Your task to perform on an android device: Add jbl flip 4 to the cart on target.com, then select checkout. Image 0: 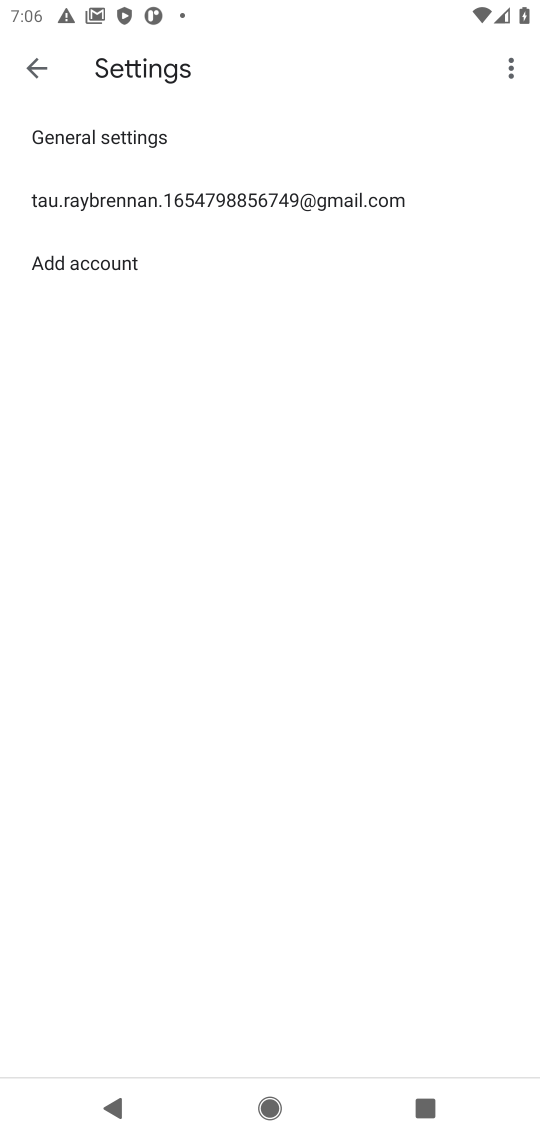
Step 0: press home button
Your task to perform on an android device: Add jbl flip 4 to the cart on target.com, then select checkout. Image 1: 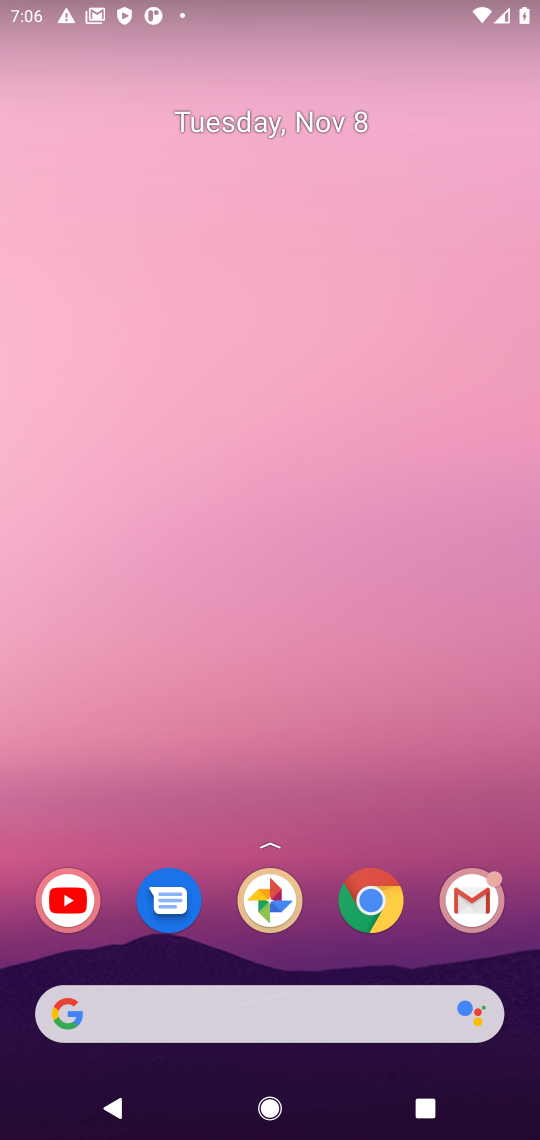
Step 1: click (355, 914)
Your task to perform on an android device: Add jbl flip 4 to the cart on target.com, then select checkout. Image 2: 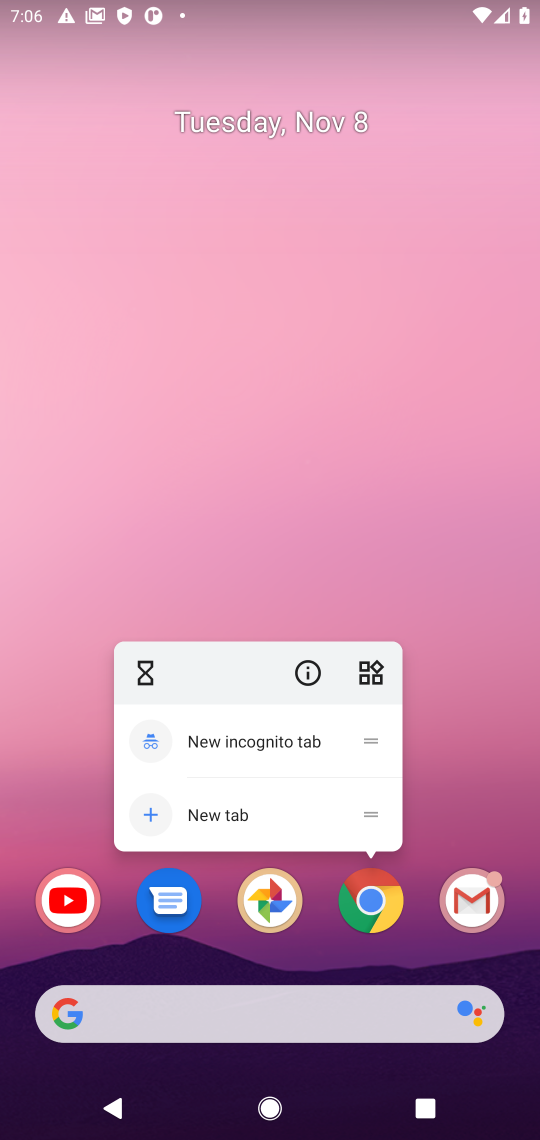
Step 2: click (382, 910)
Your task to perform on an android device: Add jbl flip 4 to the cart on target.com, then select checkout. Image 3: 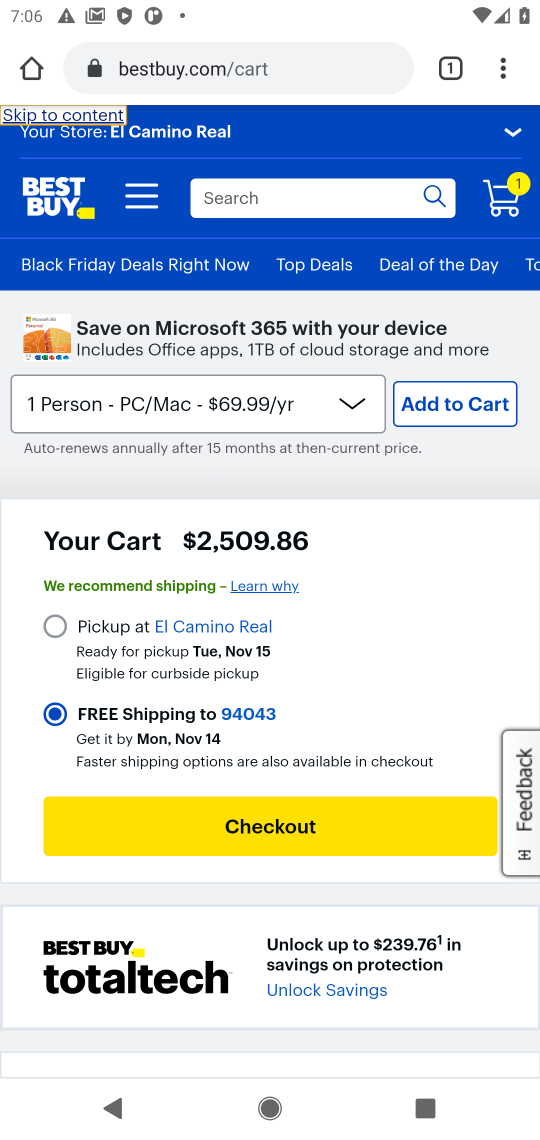
Step 3: click (227, 68)
Your task to perform on an android device: Add jbl flip 4 to the cart on target.com, then select checkout. Image 4: 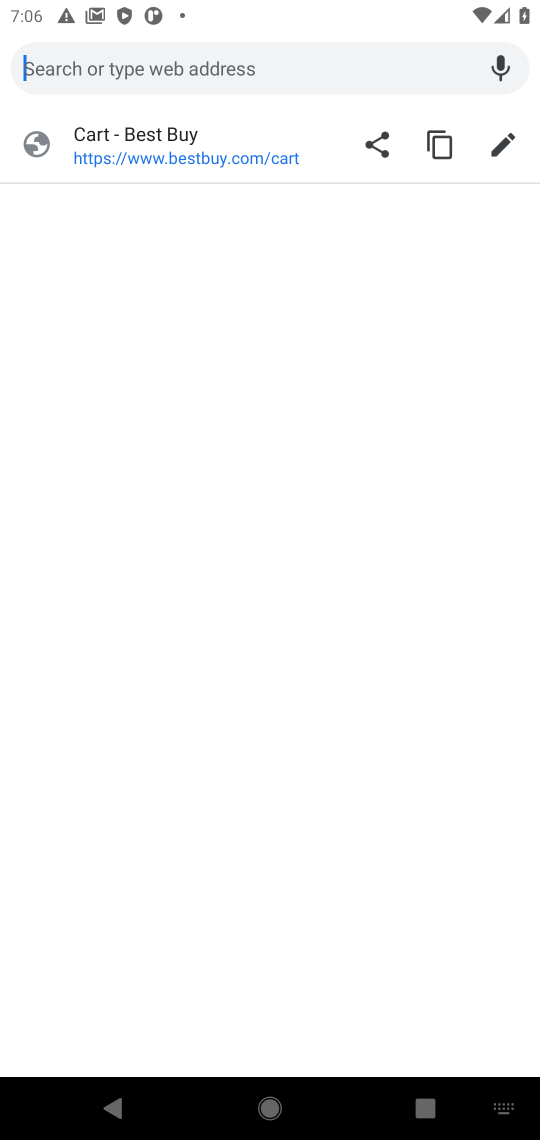
Step 4: type "target"
Your task to perform on an android device: Add jbl flip 4 to the cart on target.com, then select checkout. Image 5: 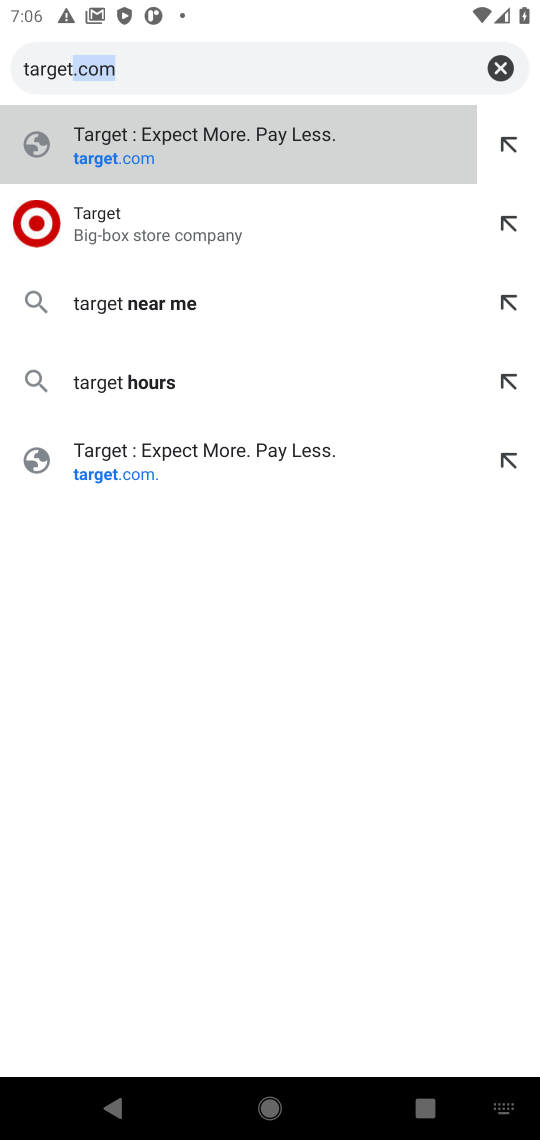
Step 5: type ""
Your task to perform on an android device: Add jbl flip 4 to the cart on target.com, then select checkout. Image 6: 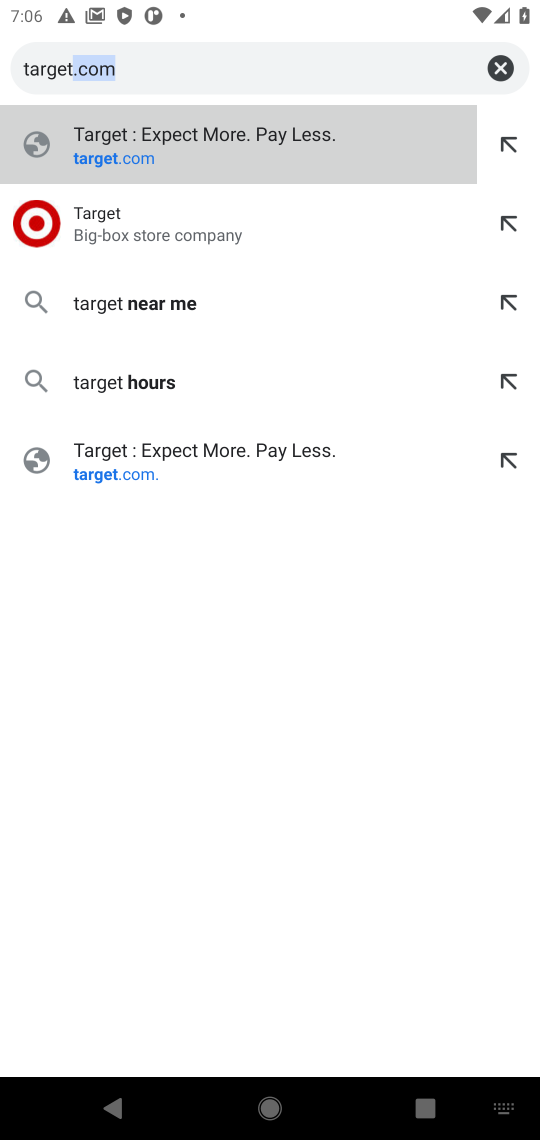
Step 6: click (125, 229)
Your task to perform on an android device: Add jbl flip 4 to the cart on target.com, then select checkout. Image 7: 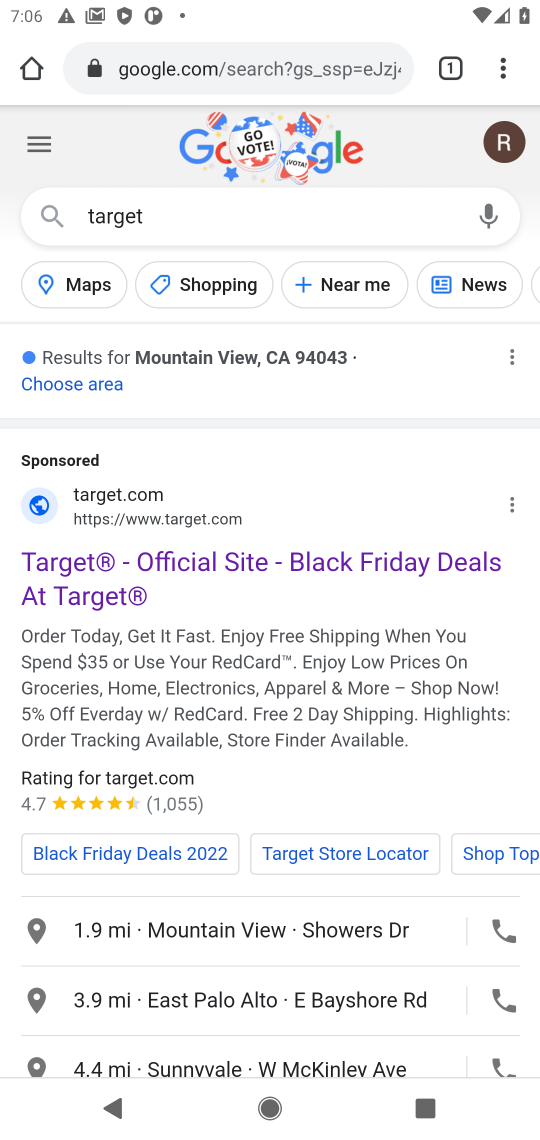
Step 7: drag from (250, 939) to (274, 296)
Your task to perform on an android device: Add jbl flip 4 to the cart on target.com, then select checkout. Image 8: 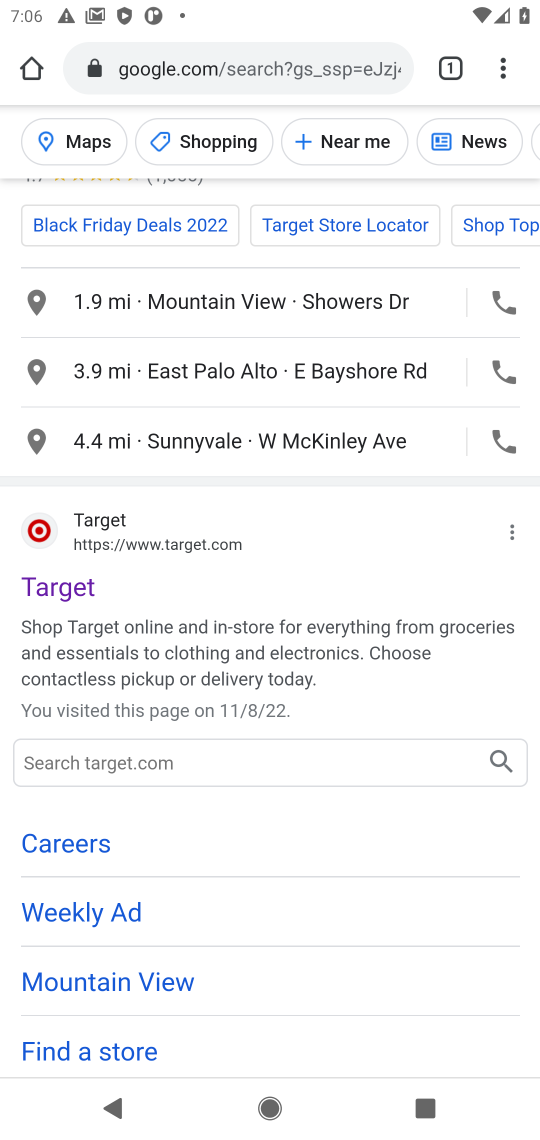
Step 8: click (66, 588)
Your task to perform on an android device: Add jbl flip 4 to the cart on target.com, then select checkout. Image 9: 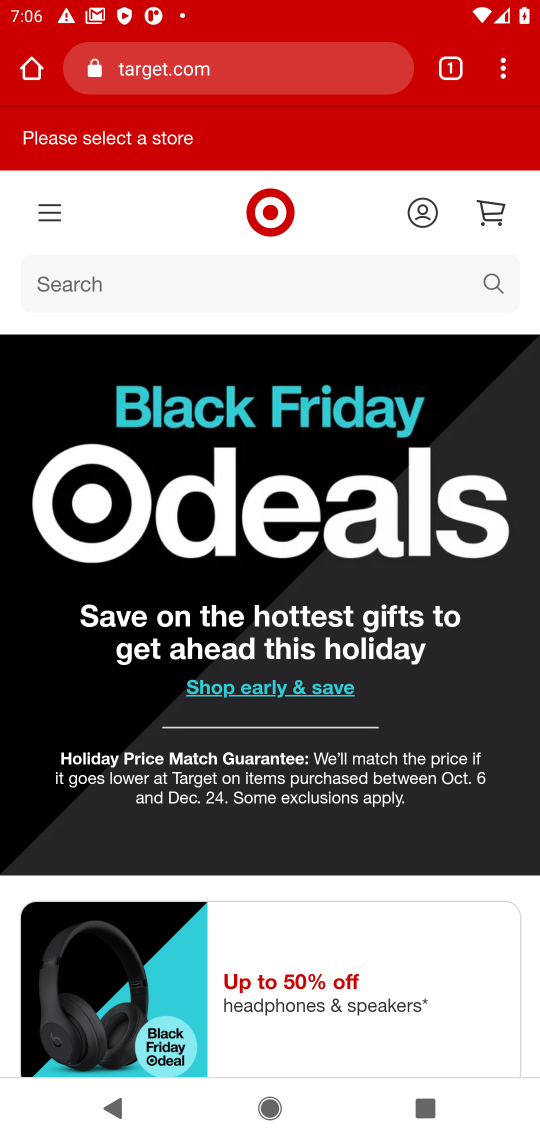
Step 9: click (235, 290)
Your task to perform on an android device: Add jbl flip 4 to the cart on target.com, then select checkout. Image 10: 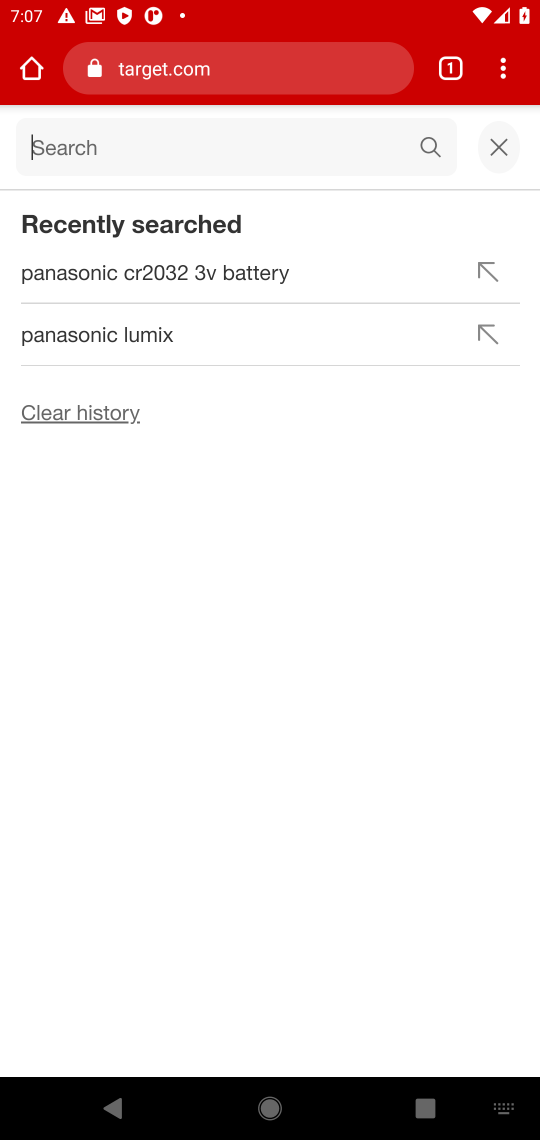
Step 10: type "jbl flip 4"
Your task to perform on an android device: Add jbl flip 4 to the cart on target.com, then select checkout. Image 11: 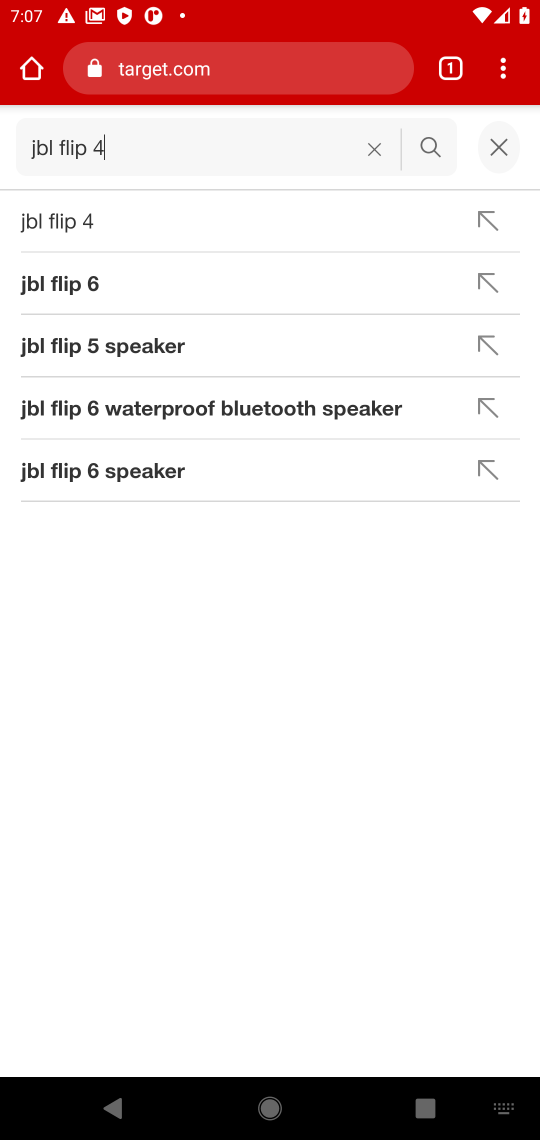
Step 11: type ""
Your task to perform on an android device: Add jbl flip 4 to the cart on target.com, then select checkout. Image 12: 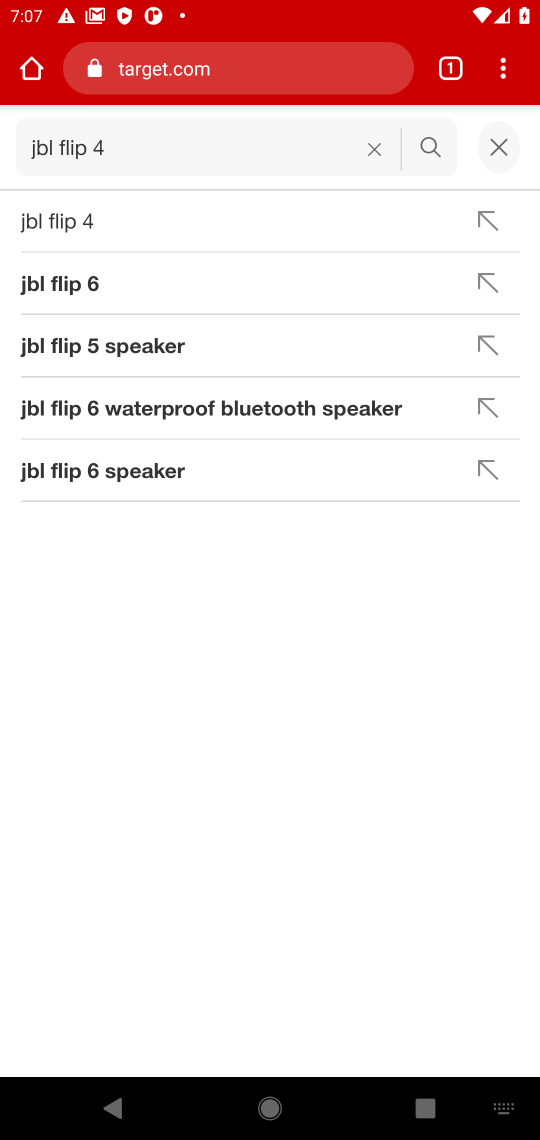
Step 12: click (53, 222)
Your task to perform on an android device: Add jbl flip 4 to the cart on target.com, then select checkout. Image 13: 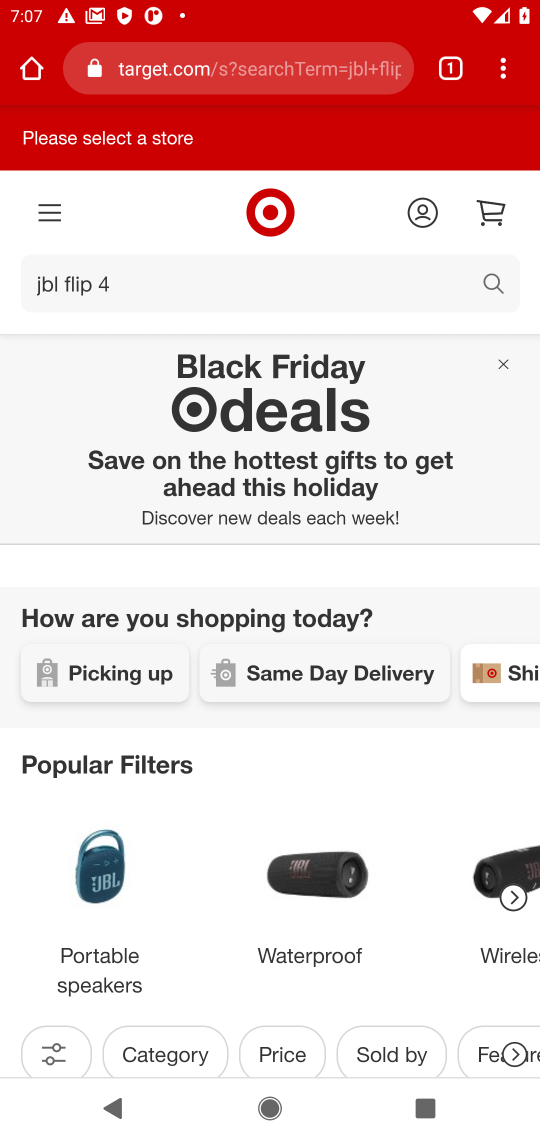
Step 13: drag from (236, 909) to (282, 139)
Your task to perform on an android device: Add jbl flip 4 to the cart on target.com, then select checkout. Image 14: 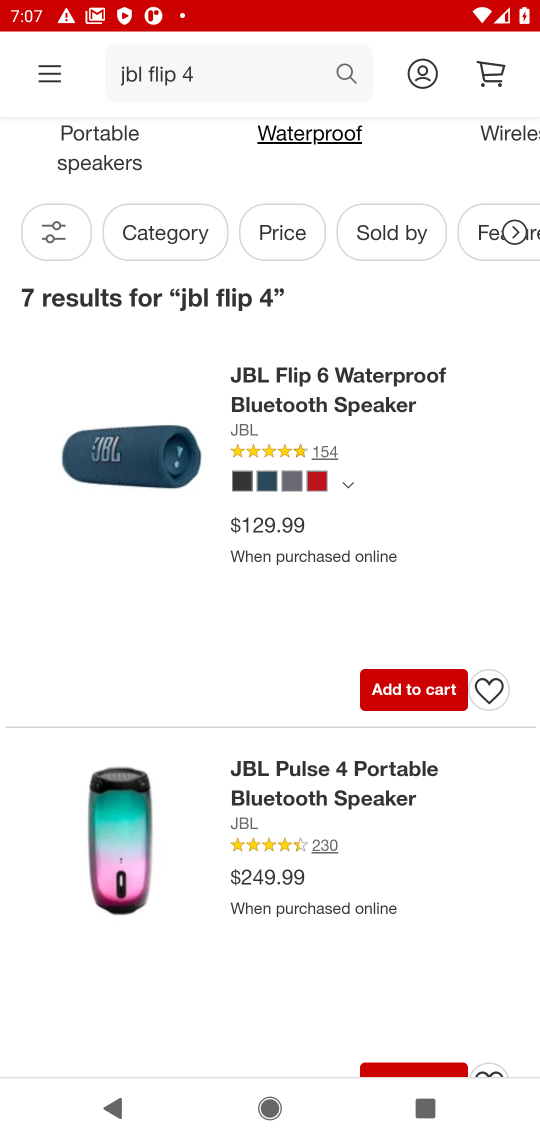
Step 14: drag from (284, 857) to (330, 242)
Your task to perform on an android device: Add jbl flip 4 to the cart on target.com, then select checkout. Image 15: 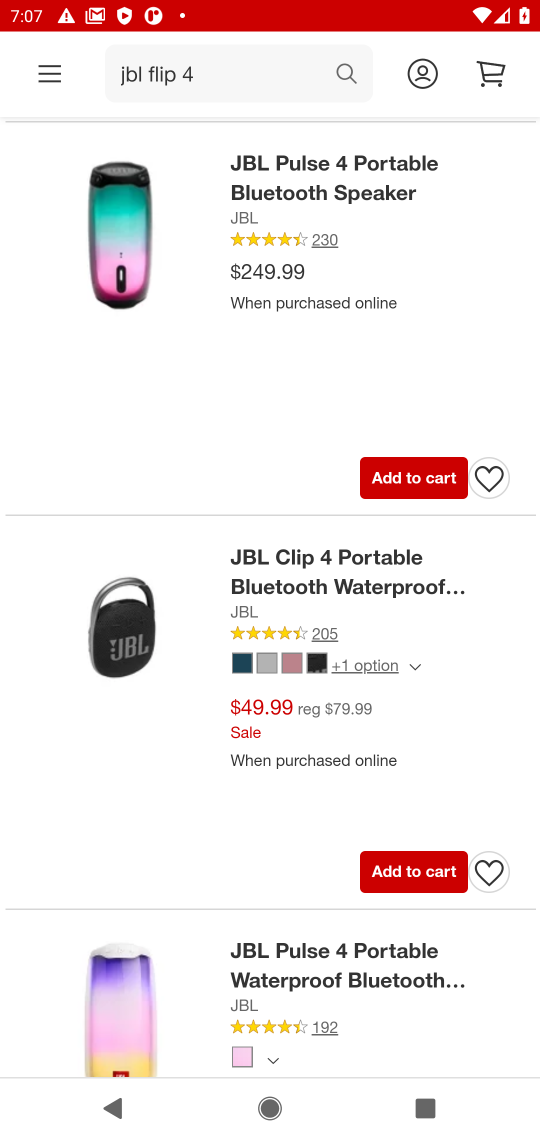
Step 15: drag from (226, 879) to (231, 379)
Your task to perform on an android device: Add jbl flip 4 to the cart on target.com, then select checkout. Image 16: 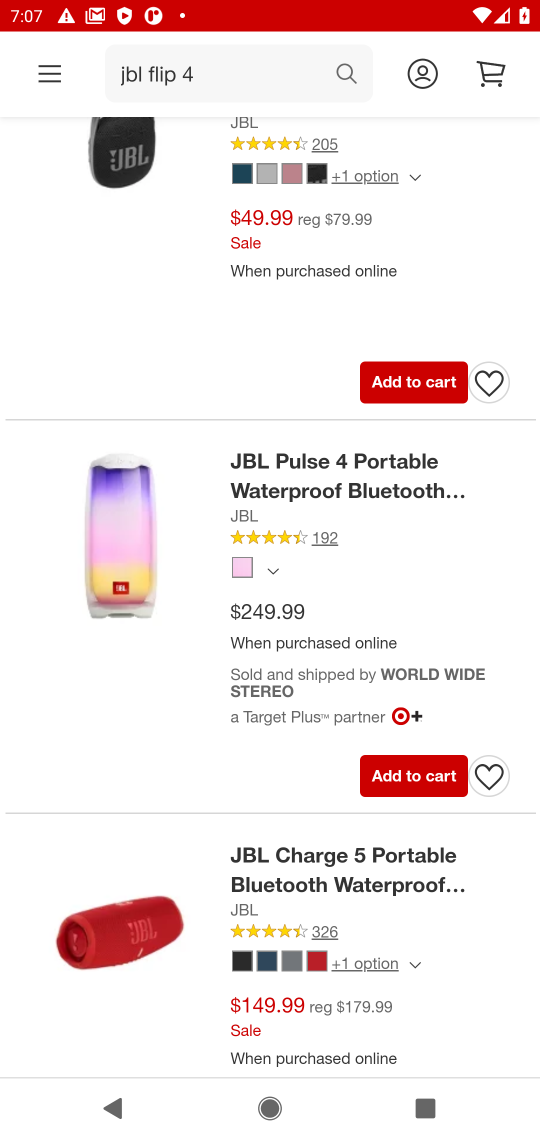
Step 16: drag from (209, 394) to (188, 1006)
Your task to perform on an android device: Add jbl flip 4 to the cart on target.com, then select checkout. Image 17: 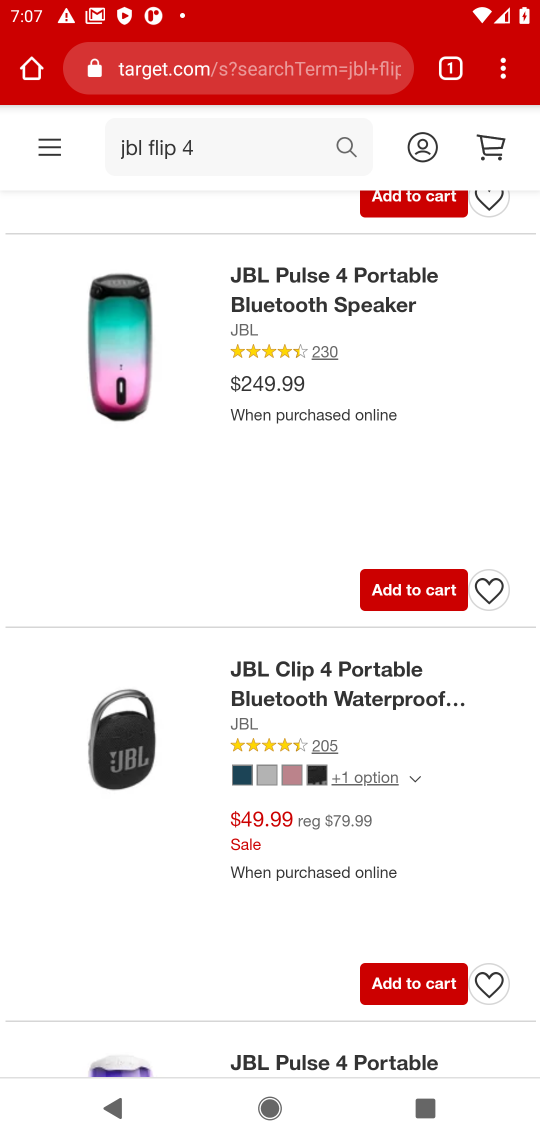
Step 17: drag from (221, 393) to (240, 978)
Your task to perform on an android device: Add jbl flip 4 to the cart on target.com, then select checkout. Image 18: 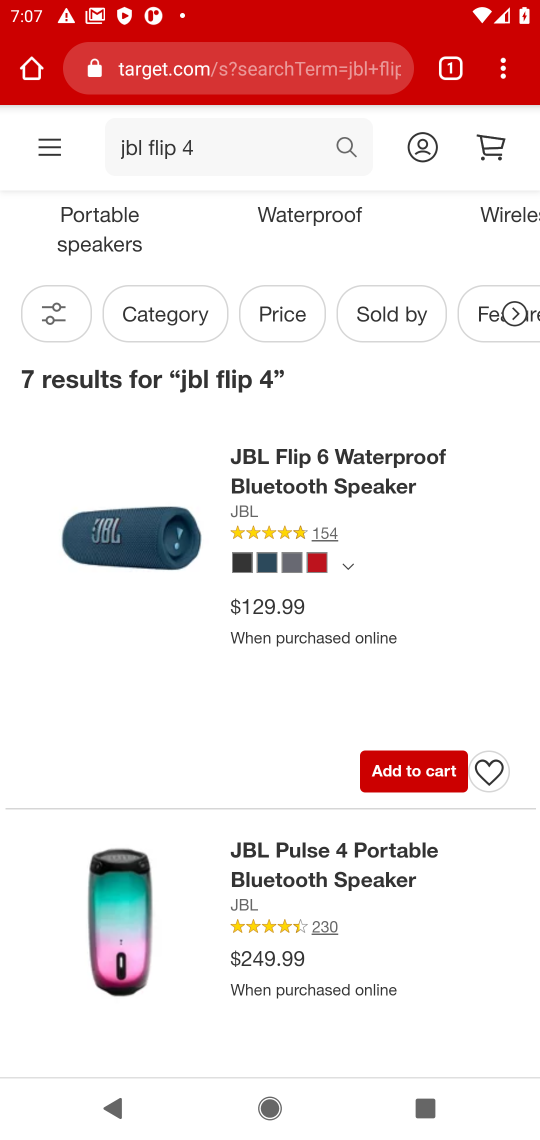
Step 18: click (270, 447)
Your task to perform on an android device: Add jbl flip 4 to the cart on target.com, then select checkout. Image 19: 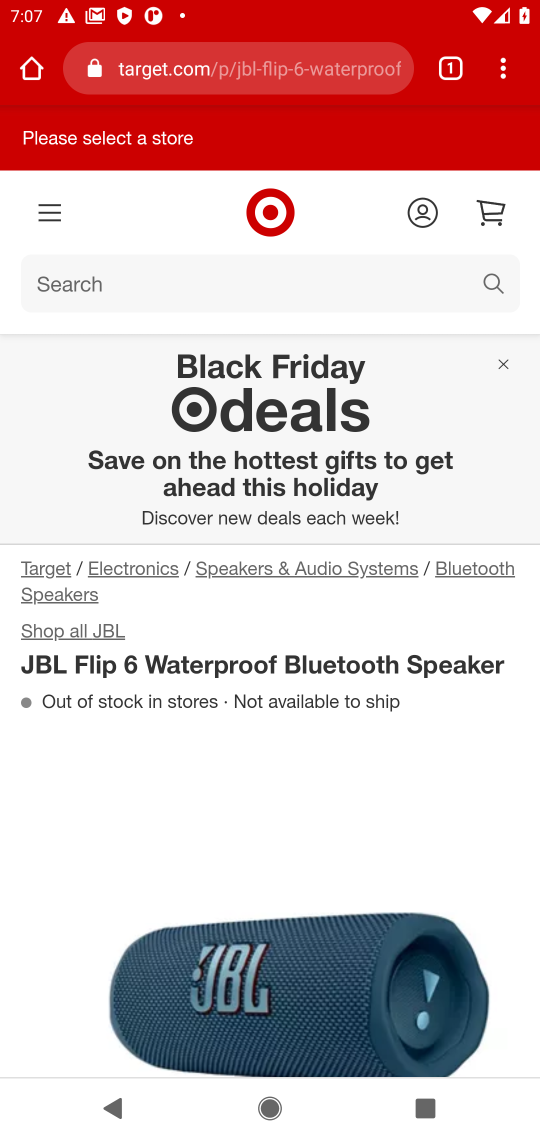
Step 19: drag from (282, 914) to (369, 254)
Your task to perform on an android device: Add jbl flip 4 to the cart on target.com, then select checkout. Image 20: 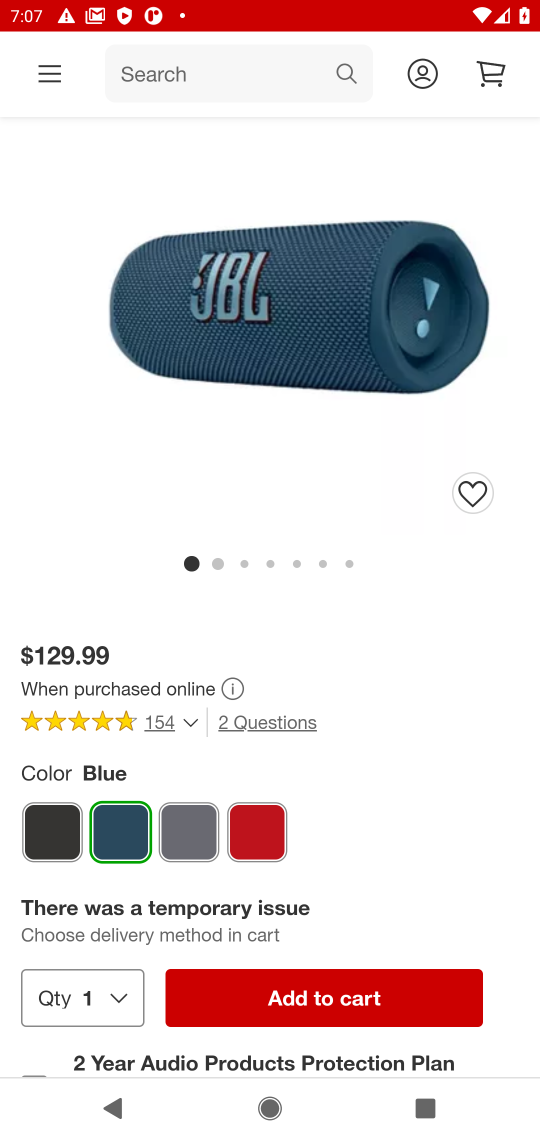
Step 20: drag from (403, 888) to (461, 492)
Your task to perform on an android device: Add jbl flip 4 to the cart on target.com, then select checkout. Image 21: 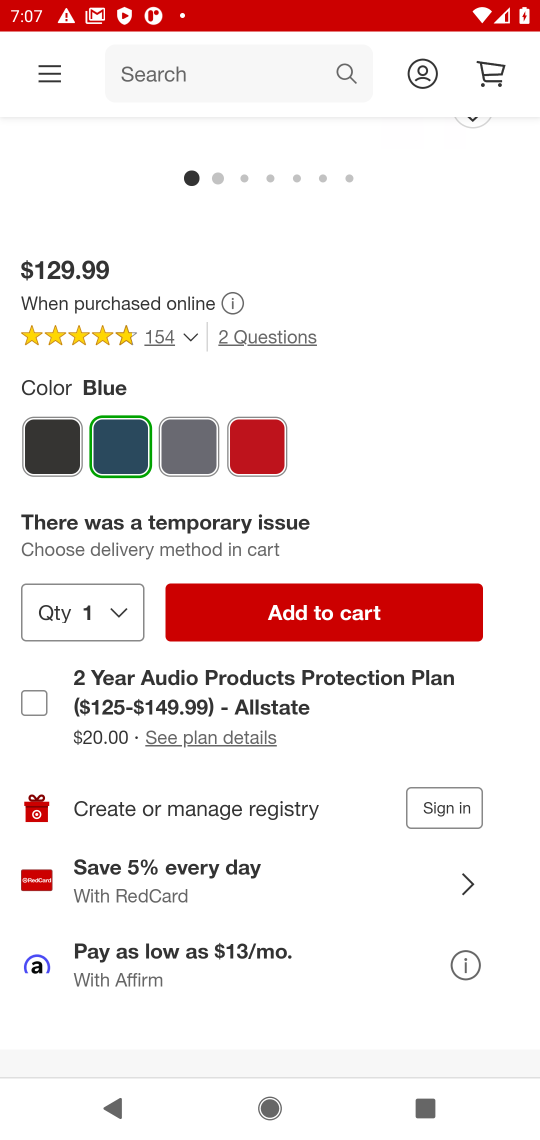
Step 21: click (342, 615)
Your task to perform on an android device: Add jbl flip 4 to the cart on target.com, then select checkout. Image 22: 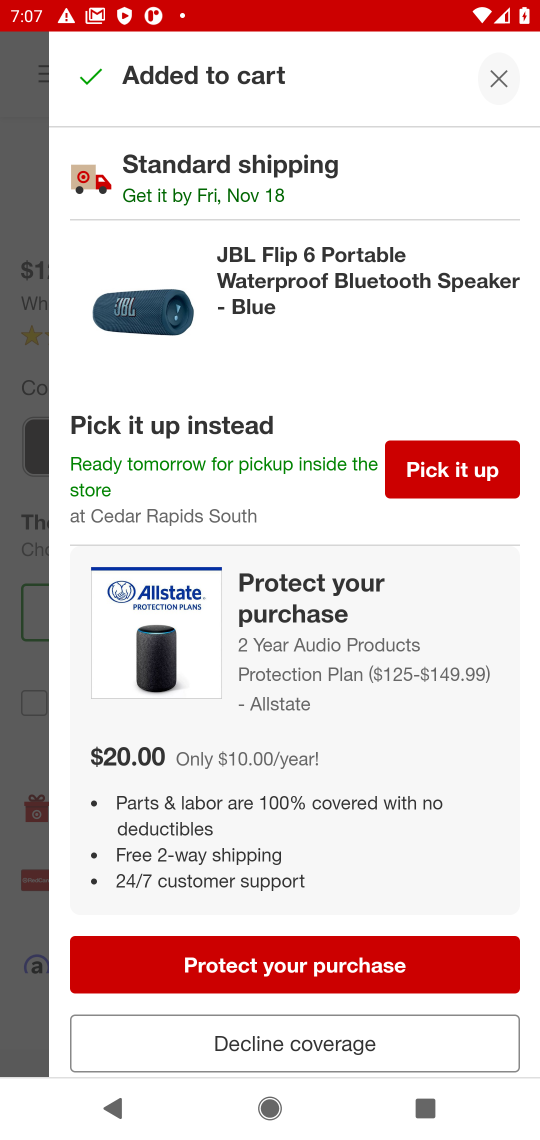
Step 22: click (273, 979)
Your task to perform on an android device: Add jbl flip 4 to the cart on target.com, then select checkout. Image 23: 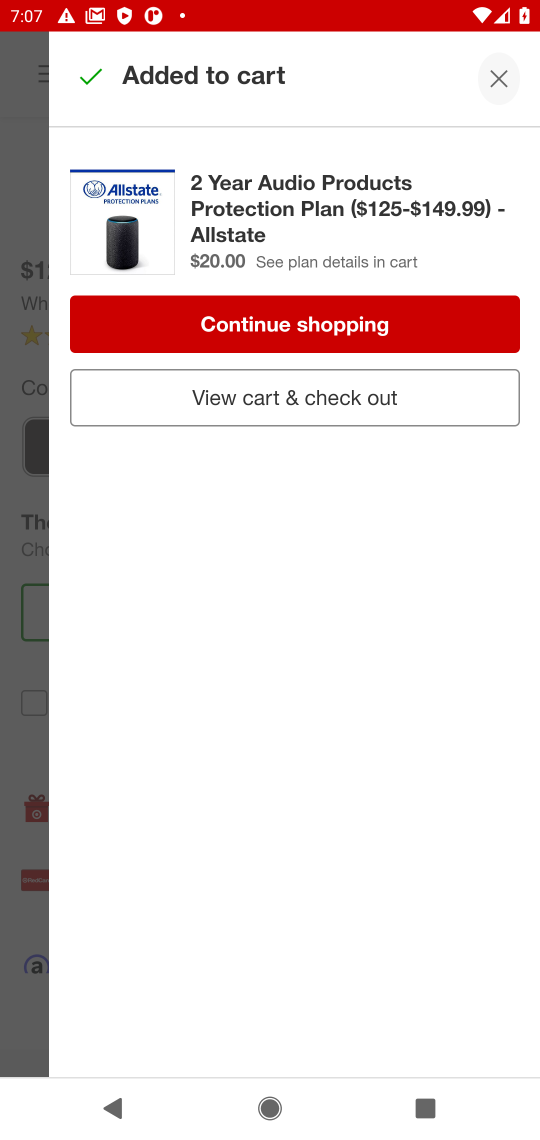
Step 23: click (258, 402)
Your task to perform on an android device: Add jbl flip 4 to the cart on target.com, then select checkout. Image 24: 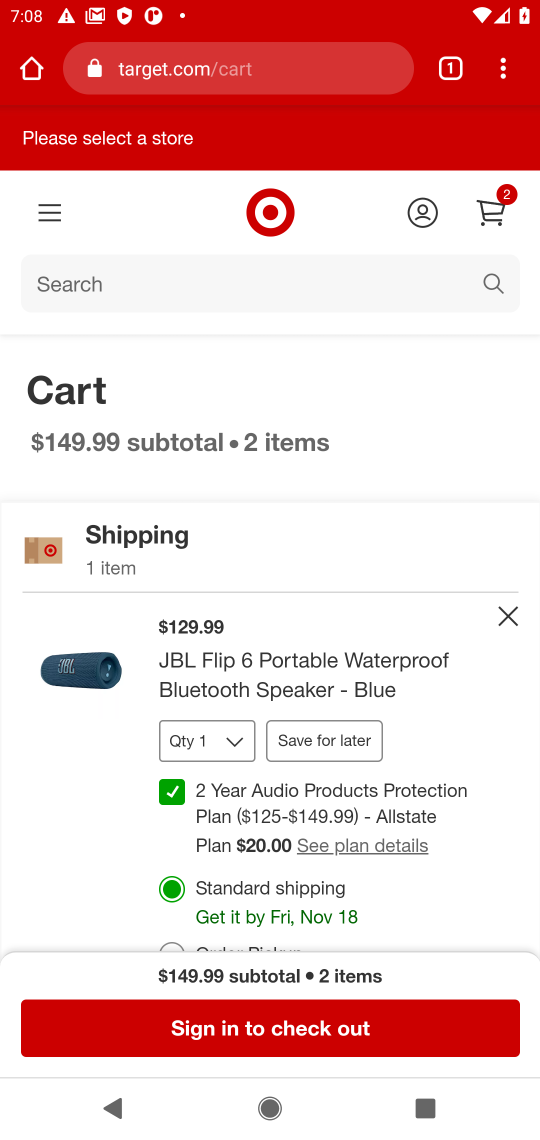
Step 24: click (277, 1038)
Your task to perform on an android device: Add jbl flip 4 to the cart on target.com, then select checkout. Image 25: 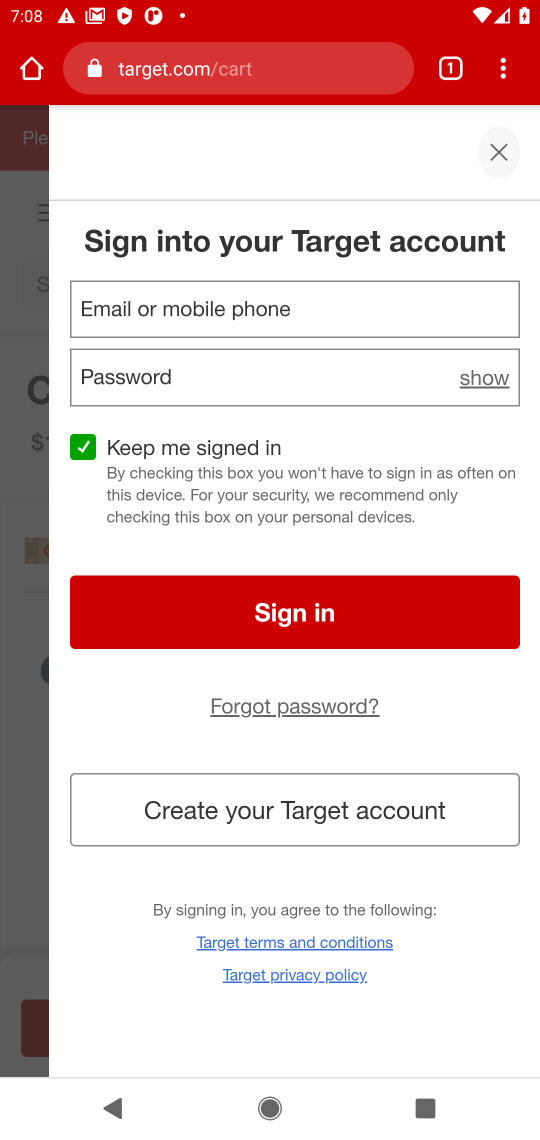
Step 25: task complete